Your task to perform on an android device: move a message to another label in the gmail app Image 0: 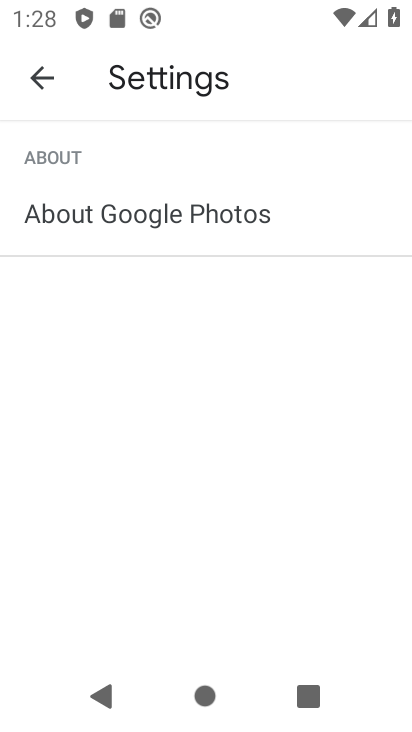
Step 0: press back button
Your task to perform on an android device: move a message to another label in the gmail app Image 1: 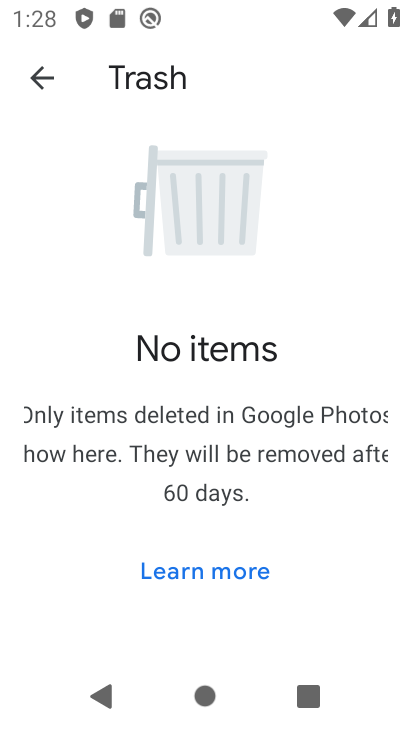
Step 1: press back button
Your task to perform on an android device: move a message to another label in the gmail app Image 2: 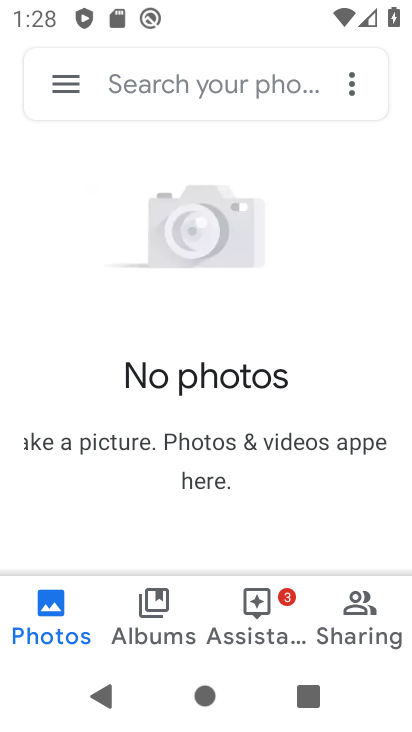
Step 2: press back button
Your task to perform on an android device: move a message to another label in the gmail app Image 3: 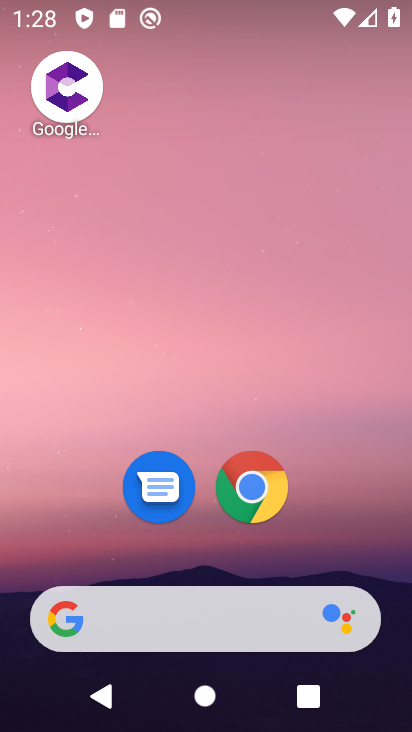
Step 3: drag from (185, 370) to (298, 3)
Your task to perform on an android device: move a message to another label in the gmail app Image 4: 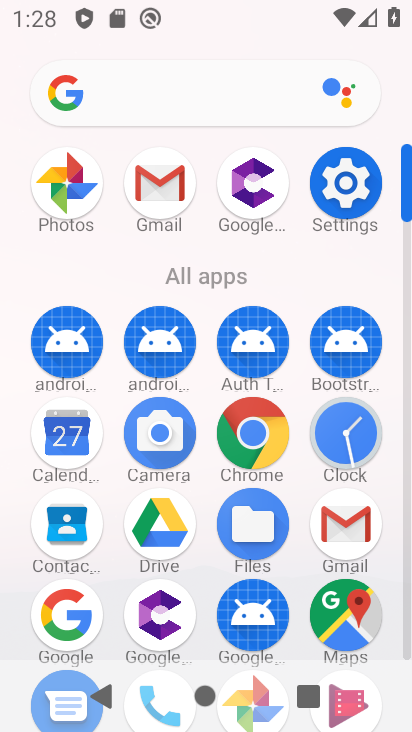
Step 4: click (150, 188)
Your task to perform on an android device: move a message to another label in the gmail app Image 5: 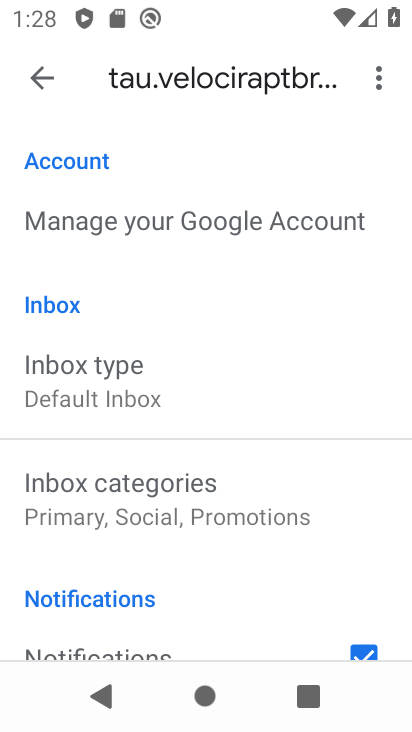
Step 5: click (37, 83)
Your task to perform on an android device: move a message to another label in the gmail app Image 6: 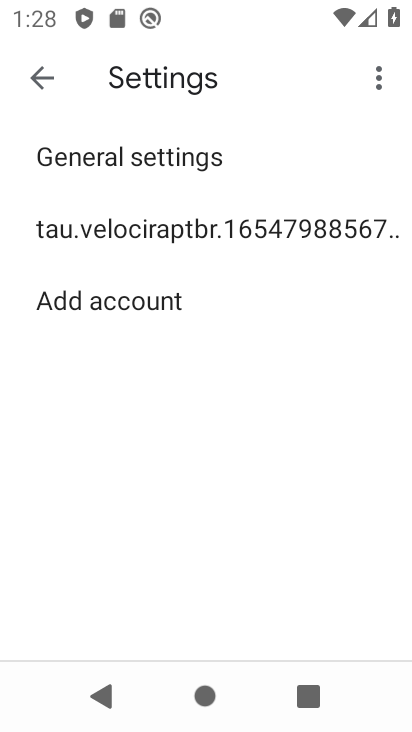
Step 6: click (32, 86)
Your task to perform on an android device: move a message to another label in the gmail app Image 7: 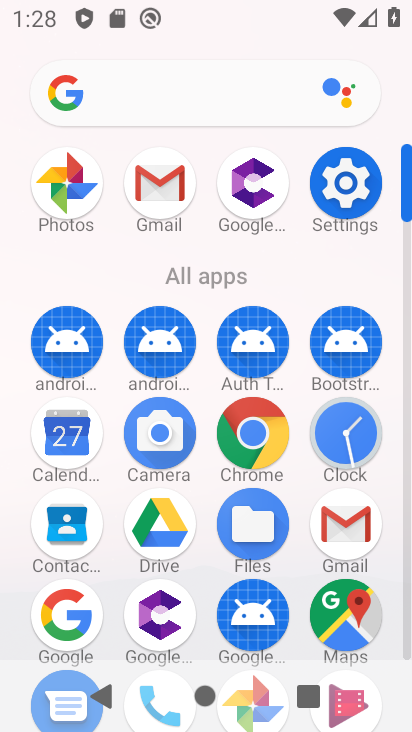
Step 7: click (147, 180)
Your task to perform on an android device: move a message to another label in the gmail app Image 8: 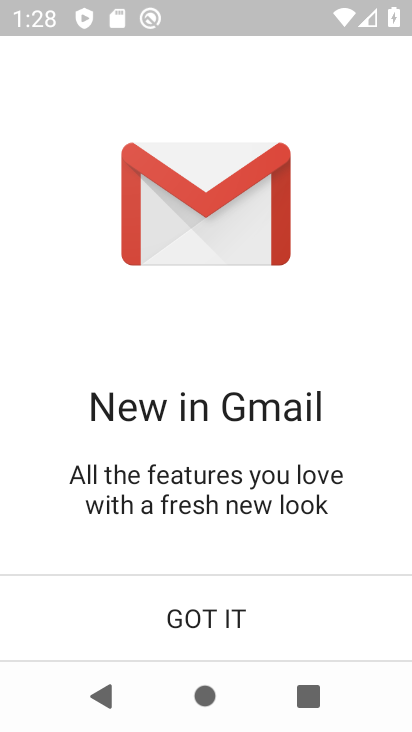
Step 8: click (200, 624)
Your task to perform on an android device: move a message to another label in the gmail app Image 9: 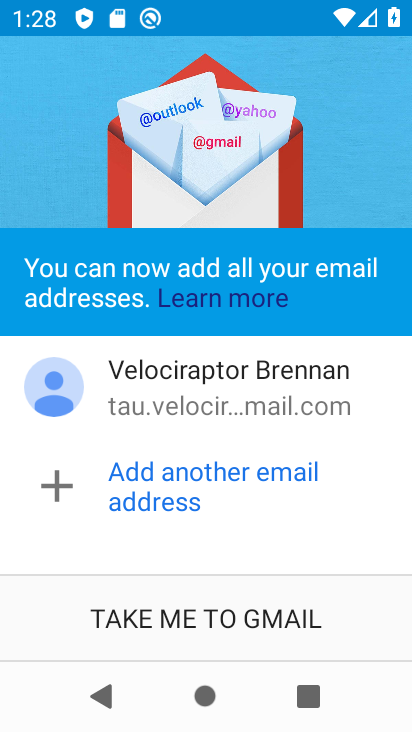
Step 9: click (200, 622)
Your task to perform on an android device: move a message to another label in the gmail app Image 10: 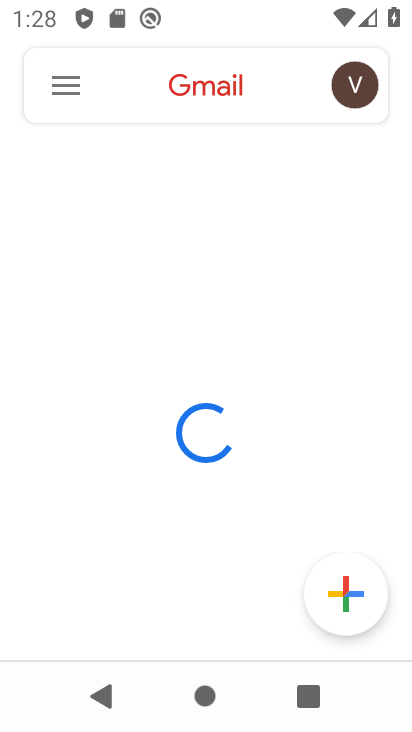
Step 10: click (56, 90)
Your task to perform on an android device: move a message to another label in the gmail app Image 11: 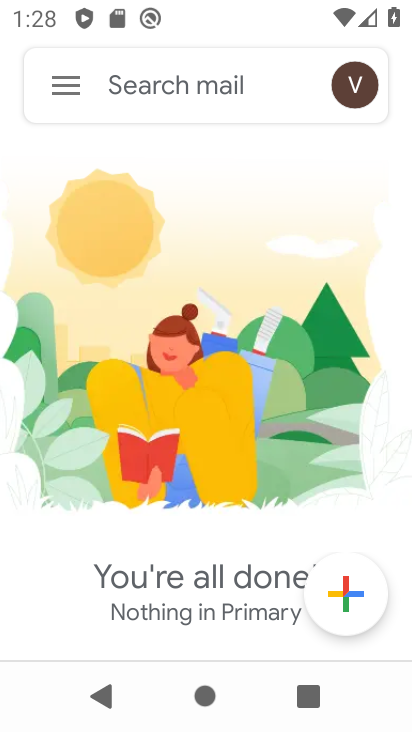
Step 11: click (70, 78)
Your task to perform on an android device: move a message to another label in the gmail app Image 12: 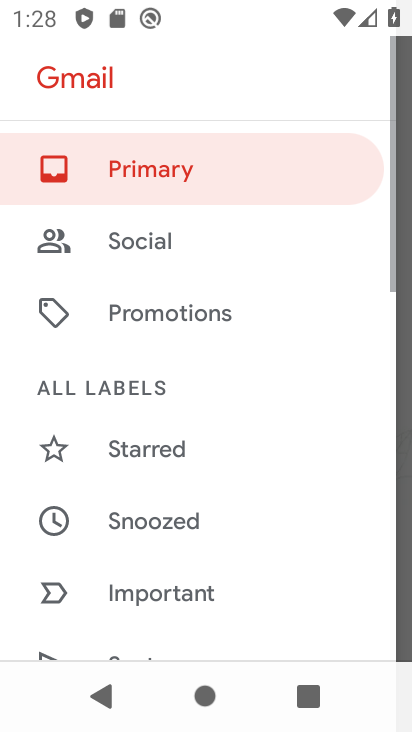
Step 12: drag from (166, 547) to (260, 82)
Your task to perform on an android device: move a message to another label in the gmail app Image 13: 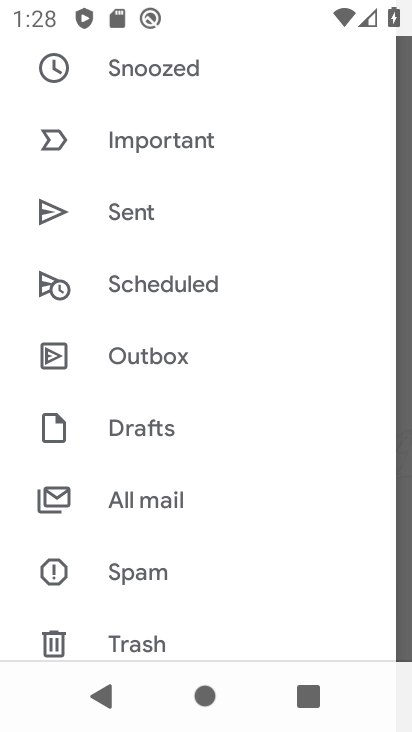
Step 13: click (156, 489)
Your task to perform on an android device: move a message to another label in the gmail app Image 14: 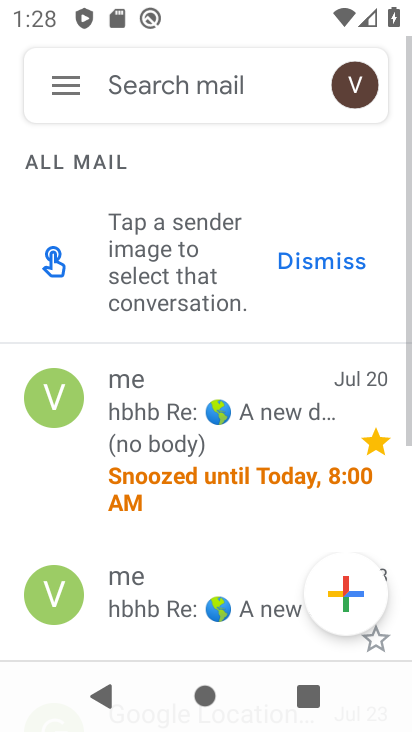
Step 14: click (170, 425)
Your task to perform on an android device: move a message to another label in the gmail app Image 15: 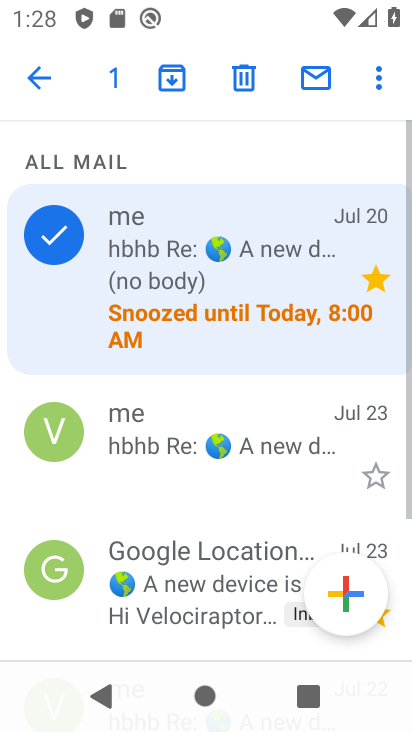
Step 15: click (371, 82)
Your task to perform on an android device: move a message to another label in the gmail app Image 16: 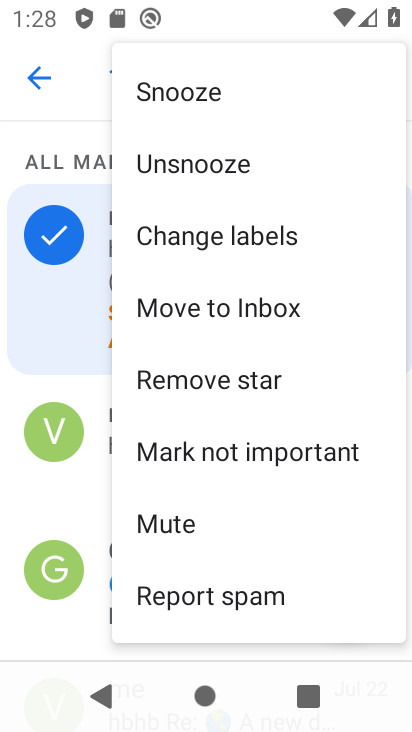
Step 16: click (230, 239)
Your task to perform on an android device: move a message to another label in the gmail app Image 17: 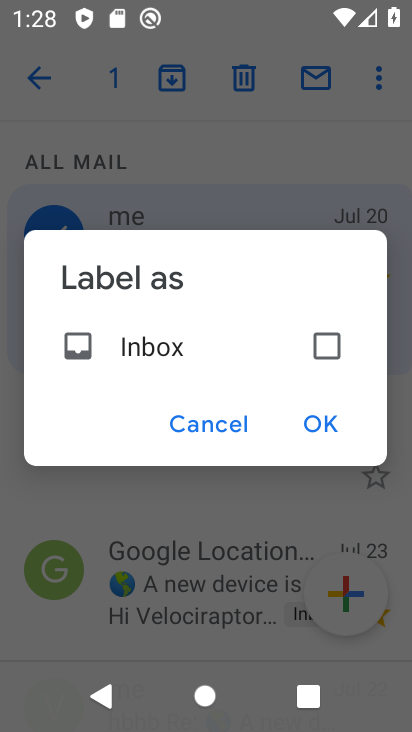
Step 17: click (341, 359)
Your task to perform on an android device: move a message to another label in the gmail app Image 18: 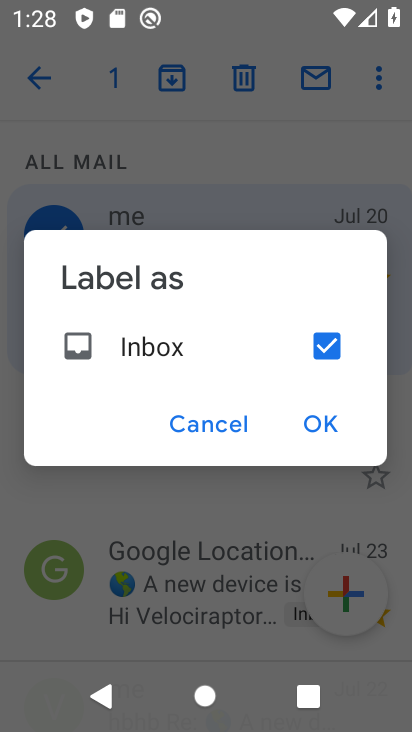
Step 18: click (328, 412)
Your task to perform on an android device: move a message to another label in the gmail app Image 19: 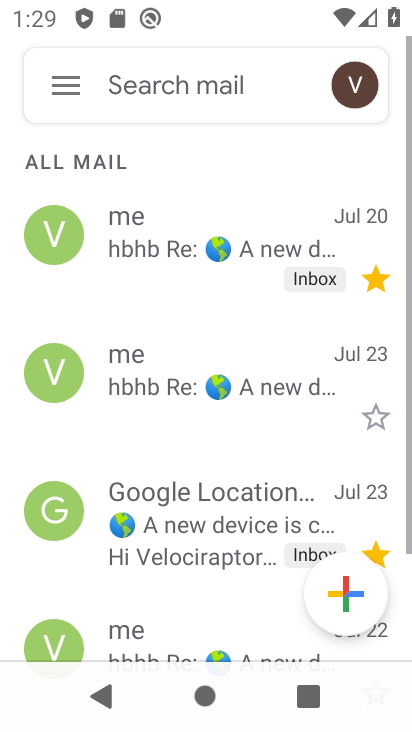
Step 19: task complete